Your task to perform on an android device: manage bookmarks in the chrome app Image 0: 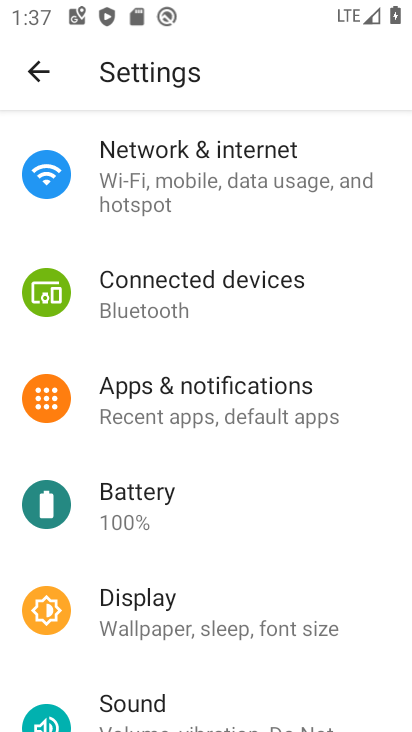
Step 0: press home button
Your task to perform on an android device: manage bookmarks in the chrome app Image 1: 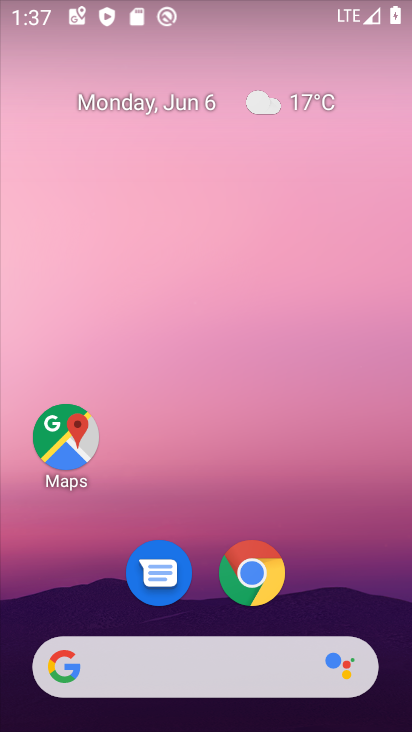
Step 1: drag from (361, 565) to (339, 163)
Your task to perform on an android device: manage bookmarks in the chrome app Image 2: 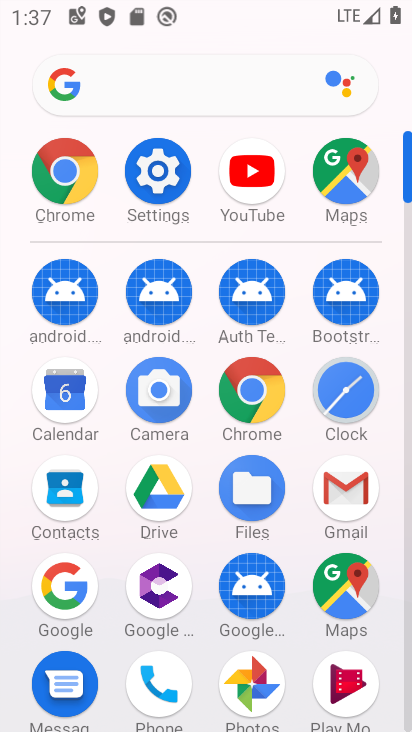
Step 2: click (267, 385)
Your task to perform on an android device: manage bookmarks in the chrome app Image 3: 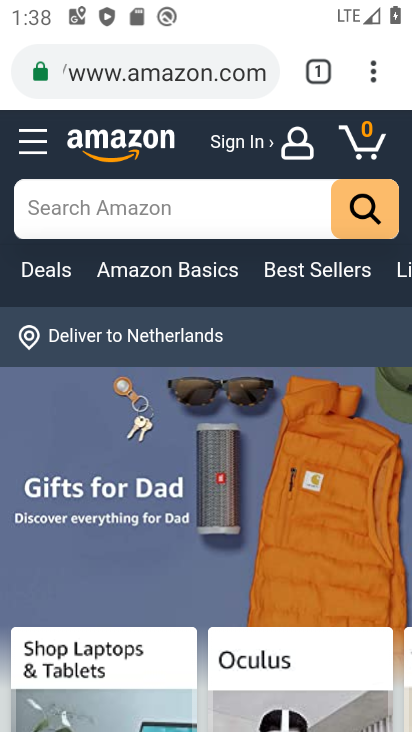
Step 3: click (372, 78)
Your task to perform on an android device: manage bookmarks in the chrome app Image 4: 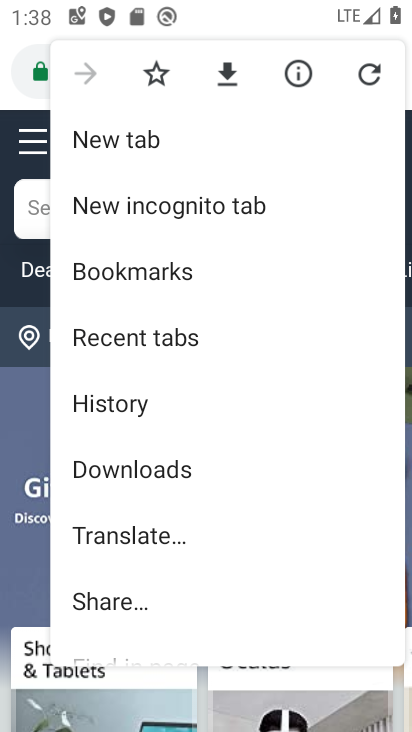
Step 4: click (194, 267)
Your task to perform on an android device: manage bookmarks in the chrome app Image 5: 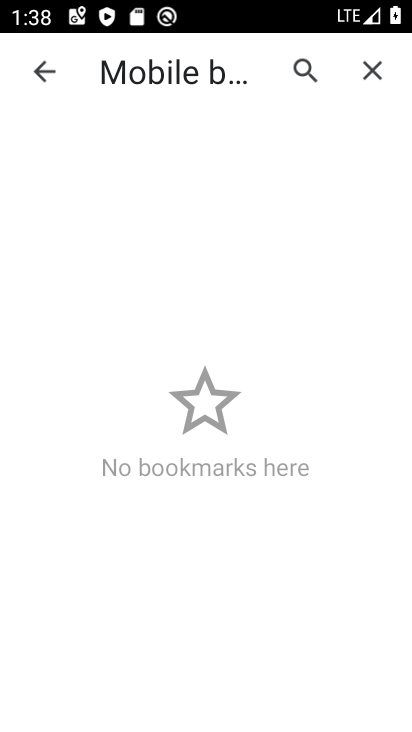
Step 5: task complete